Your task to perform on an android device: Open sound settings Image 0: 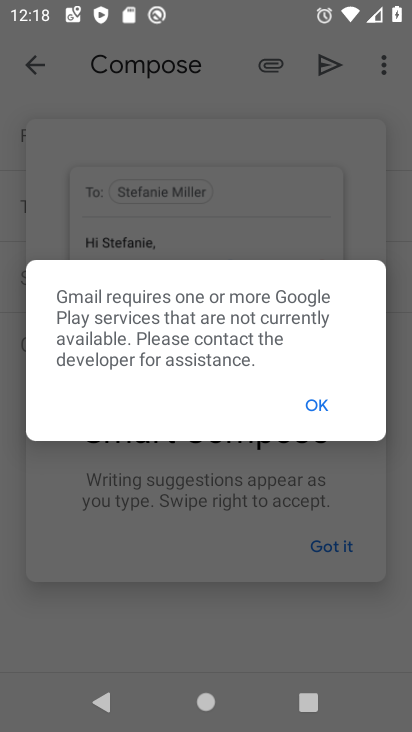
Step 0: press home button
Your task to perform on an android device: Open sound settings Image 1: 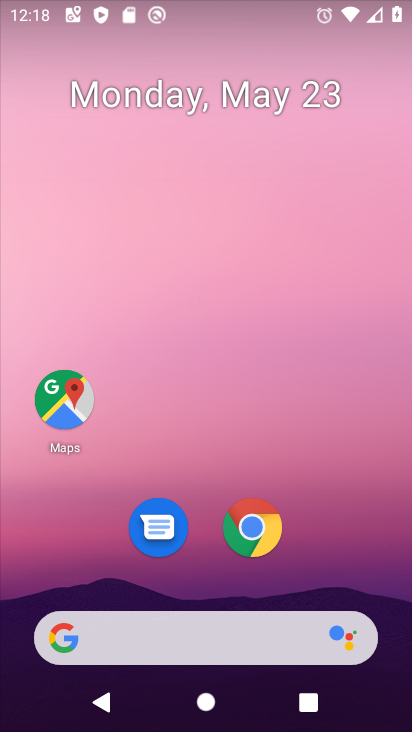
Step 1: drag from (374, 552) to (212, 150)
Your task to perform on an android device: Open sound settings Image 2: 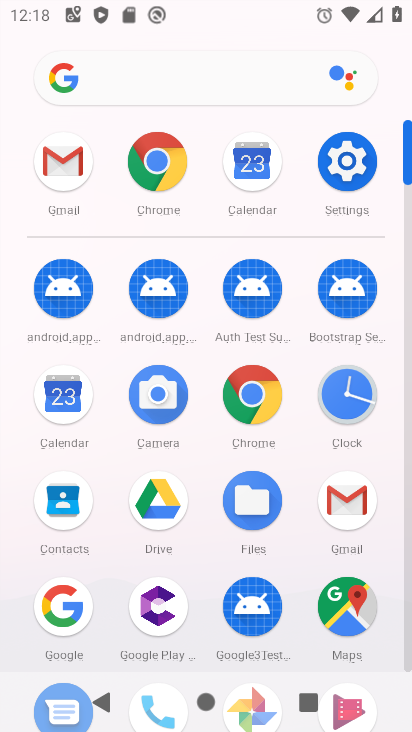
Step 2: click (331, 183)
Your task to perform on an android device: Open sound settings Image 3: 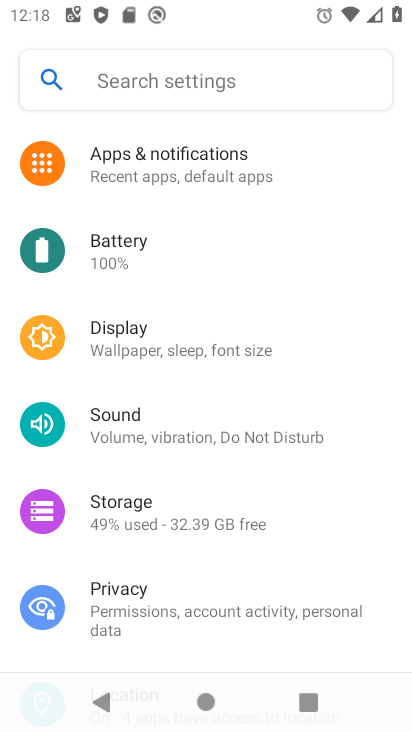
Step 3: click (232, 440)
Your task to perform on an android device: Open sound settings Image 4: 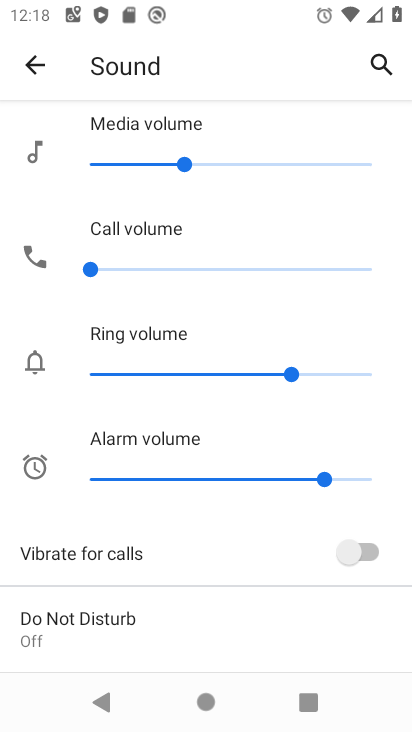
Step 4: task complete